Your task to perform on an android device: Open Maps and search for coffee Image 0: 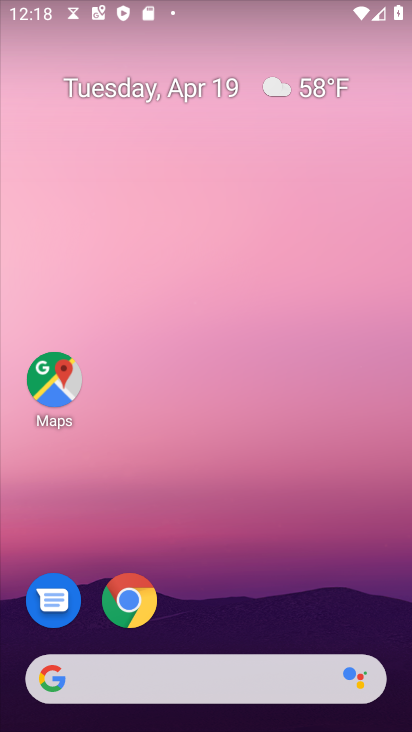
Step 0: click (57, 363)
Your task to perform on an android device: Open Maps and search for coffee Image 1: 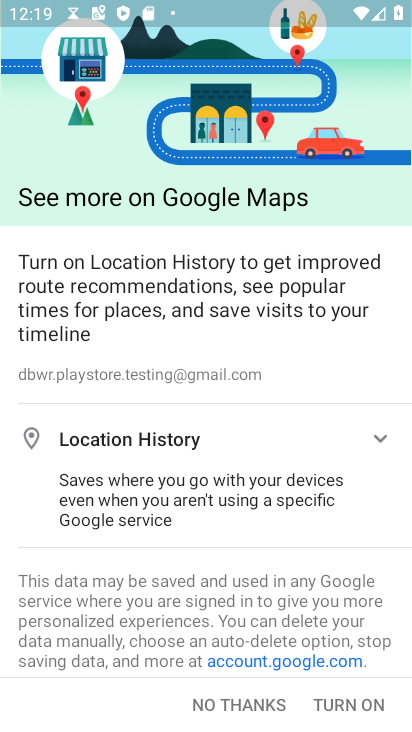
Step 1: click (354, 710)
Your task to perform on an android device: Open Maps and search for coffee Image 2: 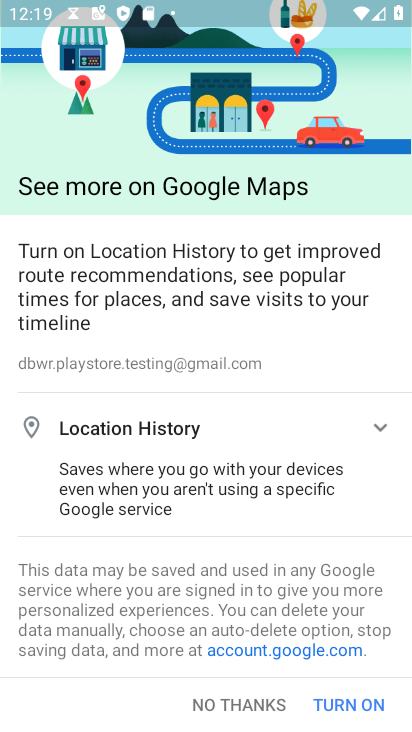
Step 2: click (354, 710)
Your task to perform on an android device: Open Maps and search for coffee Image 3: 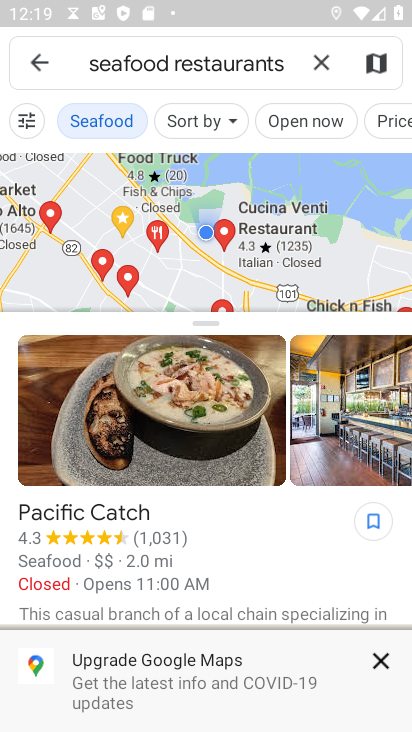
Step 3: click (319, 63)
Your task to perform on an android device: Open Maps and search for coffee Image 4: 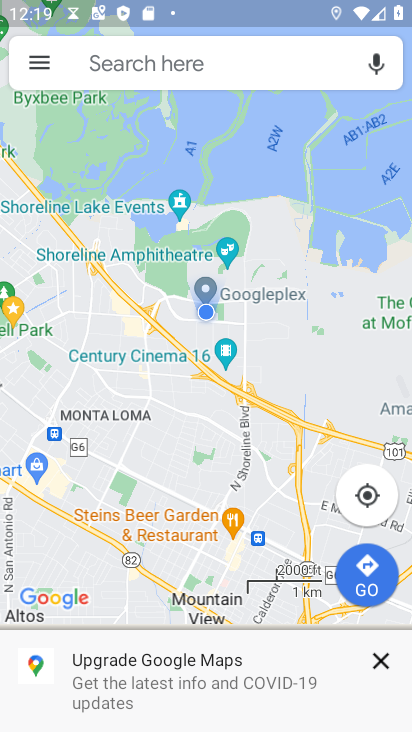
Step 4: click (211, 65)
Your task to perform on an android device: Open Maps and search for coffee Image 5: 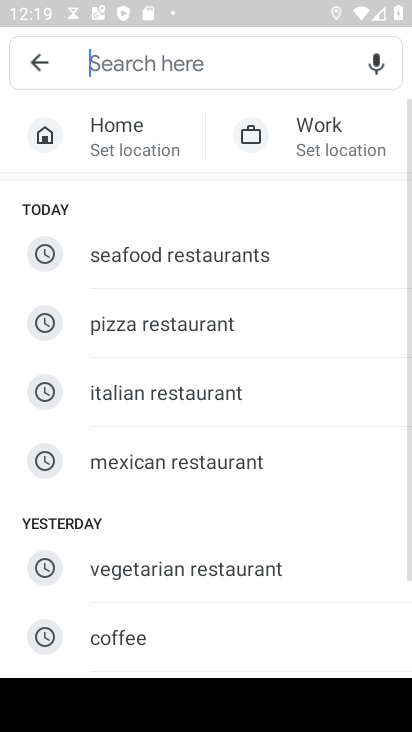
Step 5: click (157, 654)
Your task to perform on an android device: Open Maps and search for coffee Image 6: 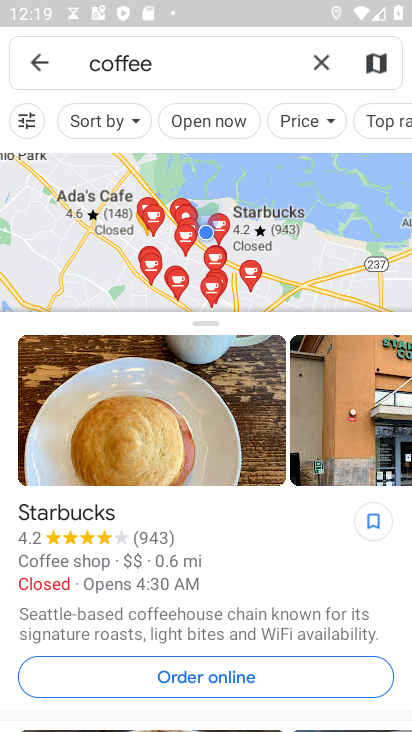
Step 6: task complete